Your task to perform on an android device: Toggle the flashlight Image 0: 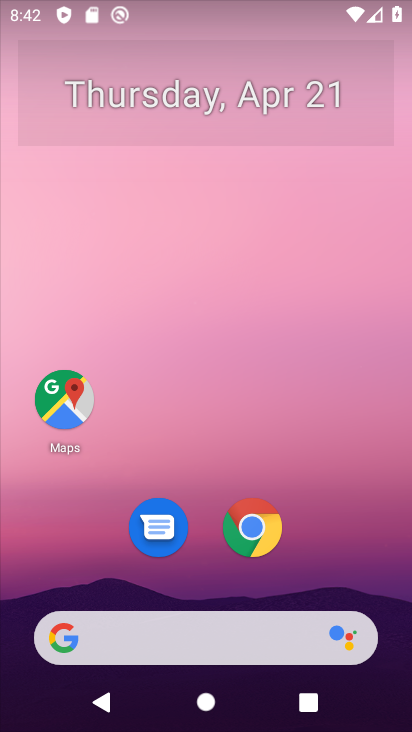
Step 0: drag from (283, 7) to (244, 619)
Your task to perform on an android device: Toggle the flashlight Image 1: 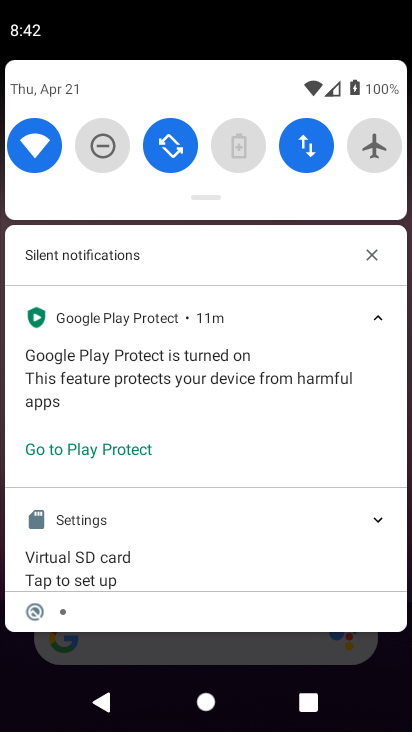
Step 1: task complete